Your task to perform on an android device: Search for "dell alienware" on newegg.com, select the first entry, and add it to the cart. Image 0: 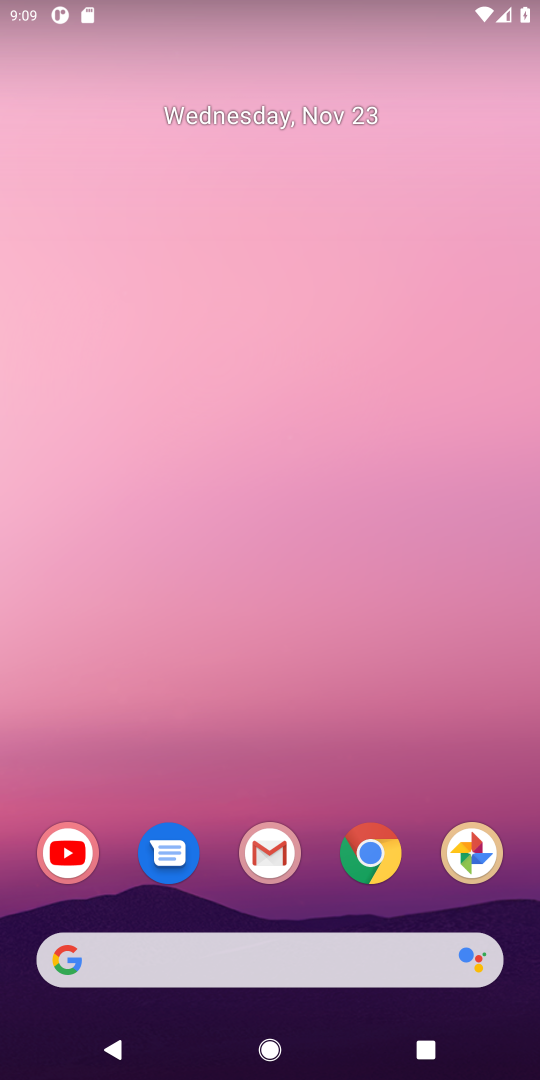
Step 0: click (365, 863)
Your task to perform on an android device: Search for "dell alienware" on newegg.com, select the first entry, and add it to the cart. Image 1: 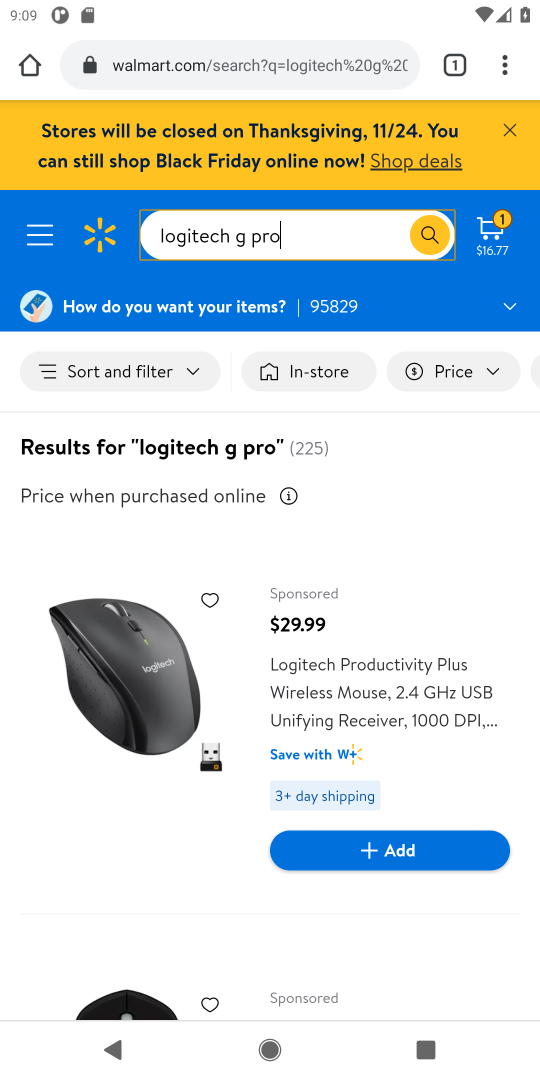
Step 1: click (219, 57)
Your task to perform on an android device: Search for "dell alienware" on newegg.com, select the first entry, and add it to the cart. Image 2: 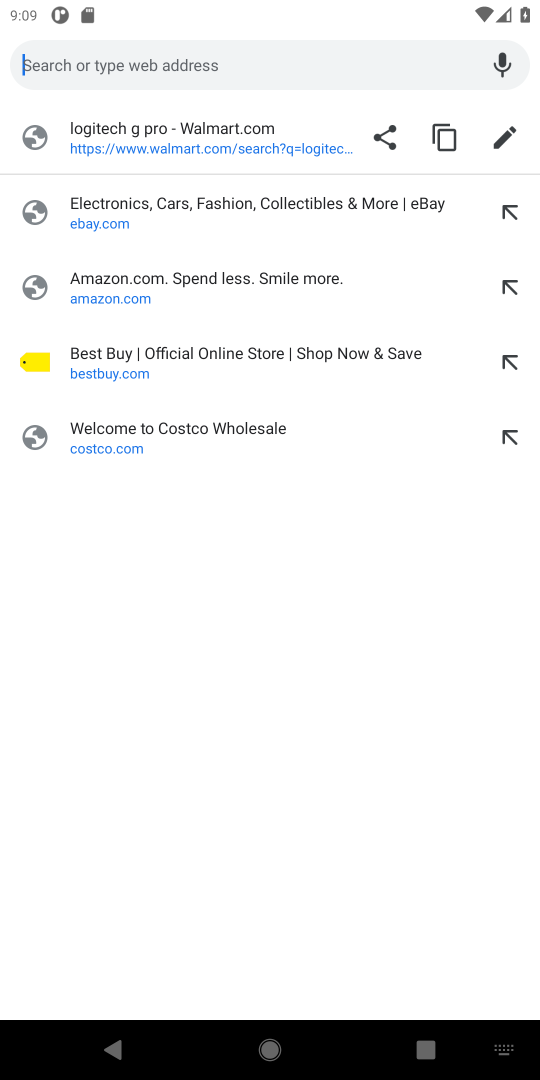
Step 2: type "newegg.com"
Your task to perform on an android device: Search for "dell alienware" on newegg.com, select the first entry, and add it to the cart. Image 3: 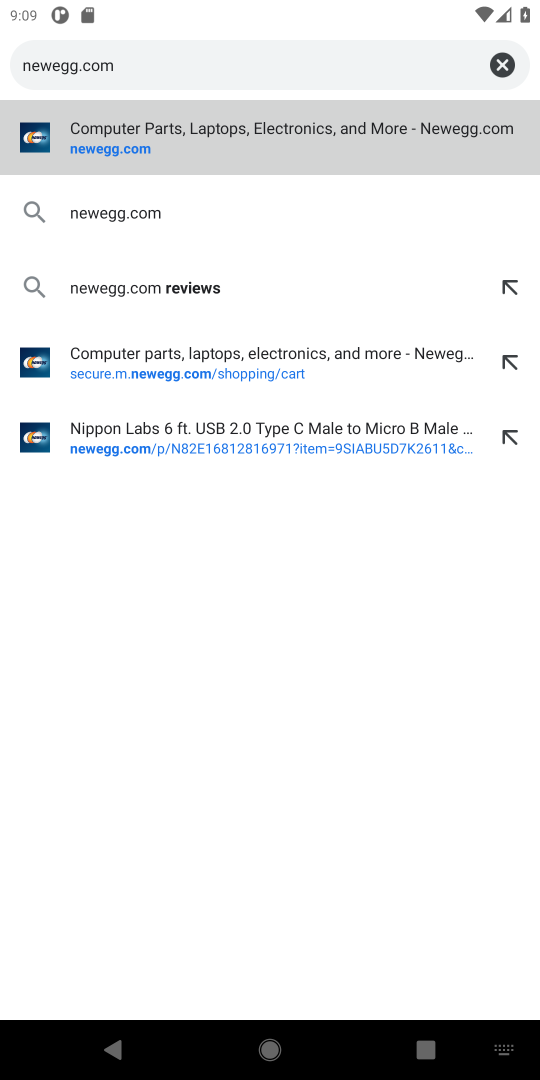
Step 3: click (90, 151)
Your task to perform on an android device: Search for "dell alienware" on newegg.com, select the first entry, and add it to the cart. Image 4: 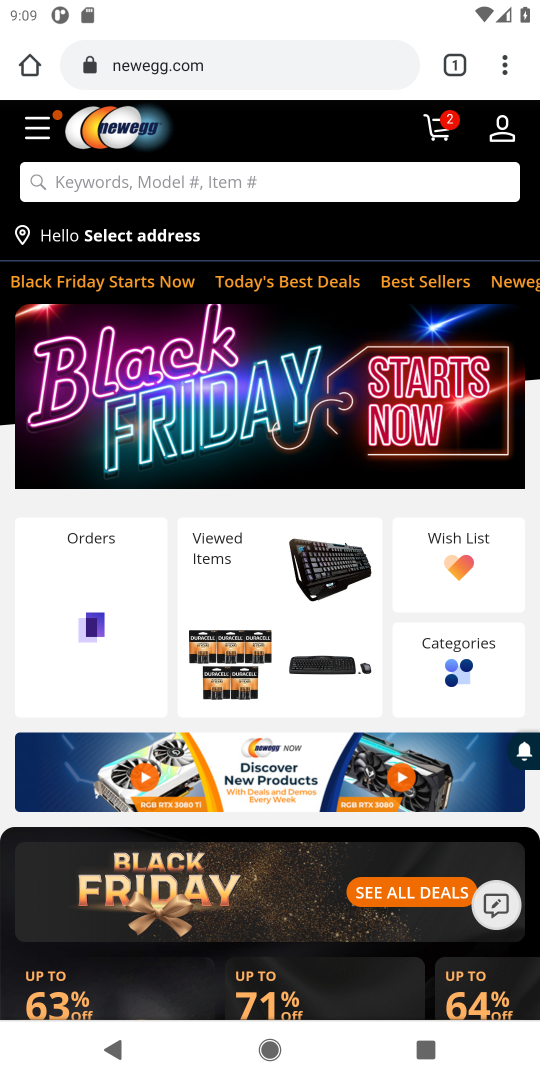
Step 4: click (248, 194)
Your task to perform on an android device: Search for "dell alienware" on newegg.com, select the first entry, and add it to the cart. Image 5: 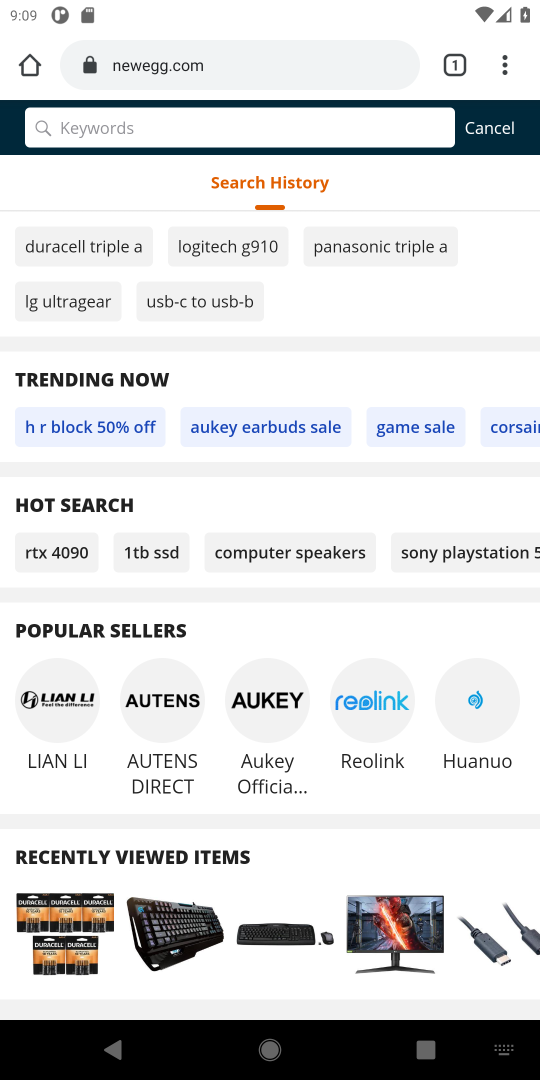
Step 5: type "dell alienware"
Your task to perform on an android device: Search for "dell alienware" on newegg.com, select the first entry, and add it to the cart. Image 6: 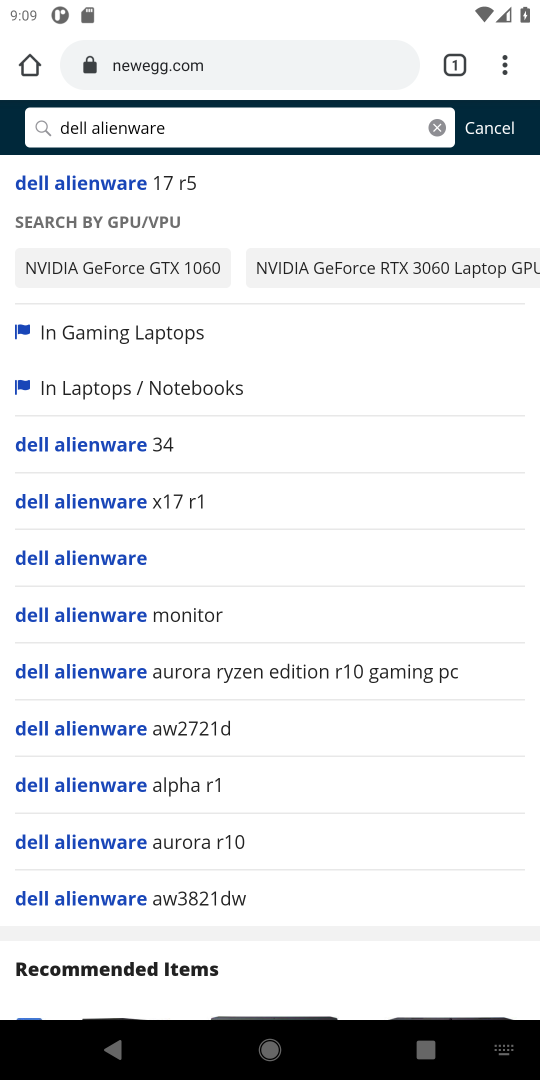
Step 6: click (96, 554)
Your task to perform on an android device: Search for "dell alienware" on newegg.com, select the first entry, and add it to the cart. Image 7: 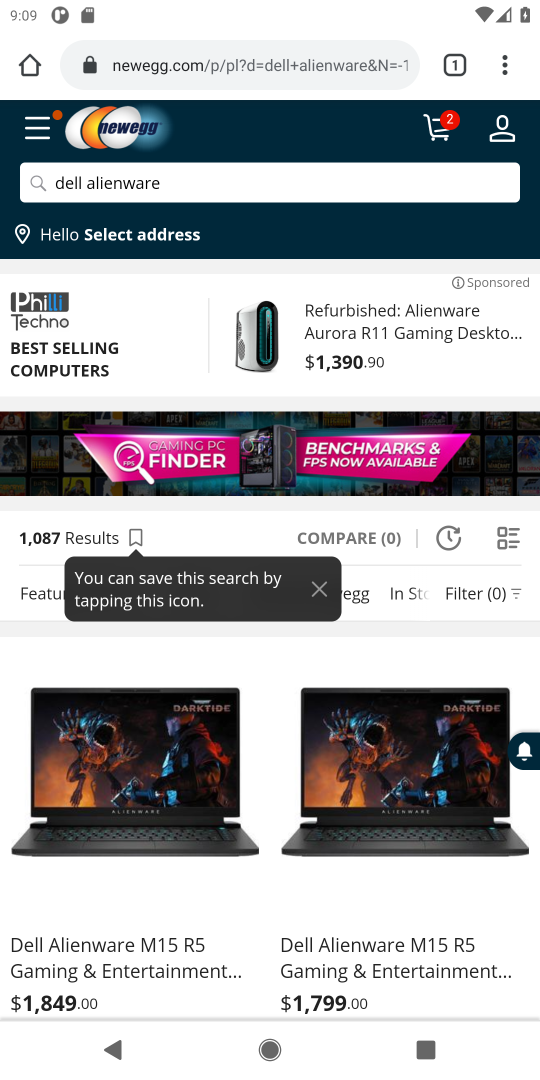
Step 7: drag from (223, 682) to (216, 337)
Your task to perform on an android device: Search for "dell alienware" on newegg.com, select the first entry, and add it to the cart. Image 8: 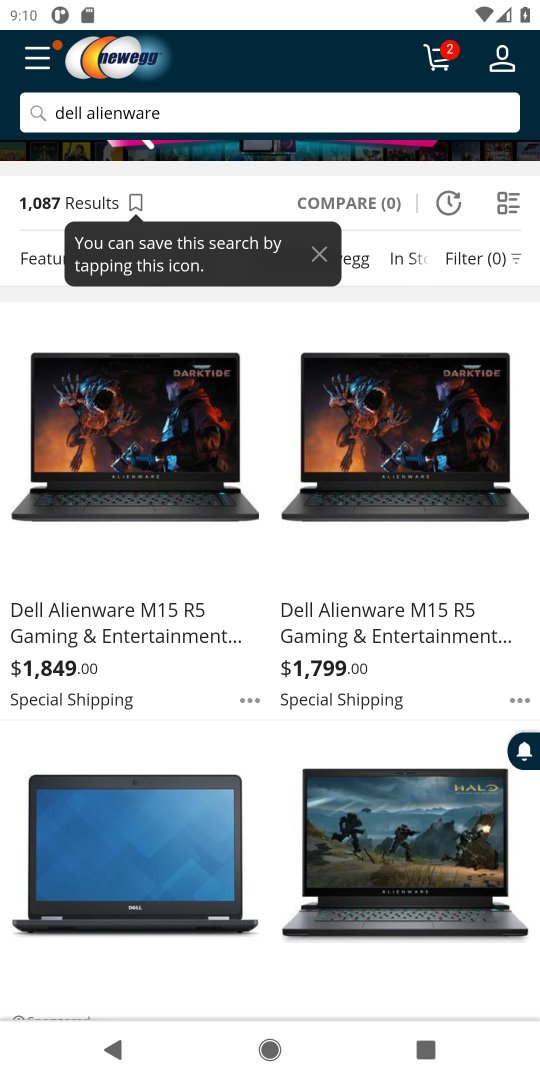
Step 8: click (130, 461)
Your task to perform on an android device: Search for "dell alienware" on newegg.com, select the first entry, and add it to the cart. Image 9: 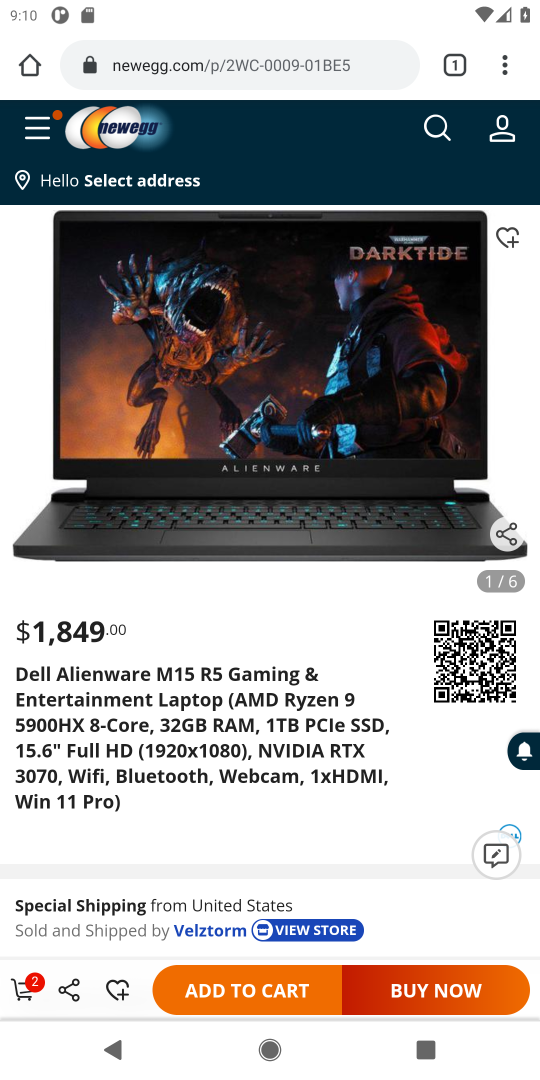
Step 9: click (239, 993)
Your task to perform on an android device: Search for "dell alienware" on newegg.com, select the first entry, and add it to the cart. Image 10: 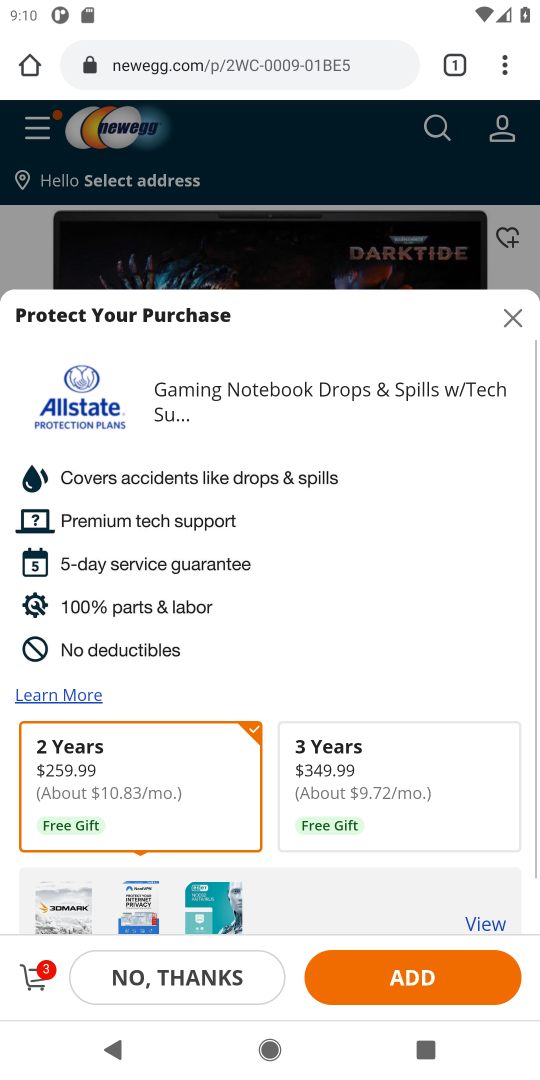
Step 10: task complete